Your task to perform on an android device: Open Reddit.com Image 0: 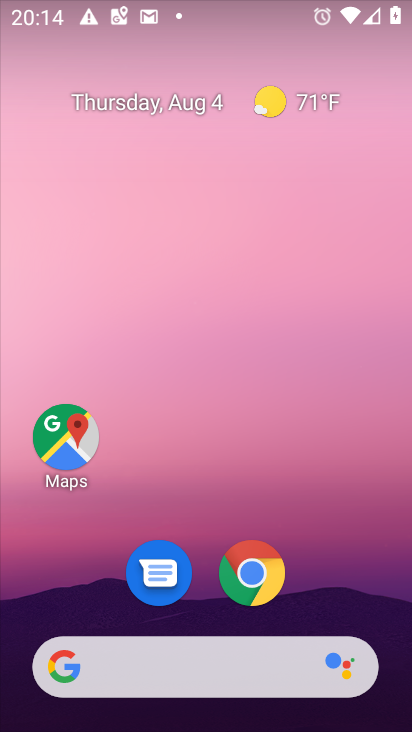
Step 0: click (267, 586)
Your task to perform on an android device: Open Reddit.com Image 1: 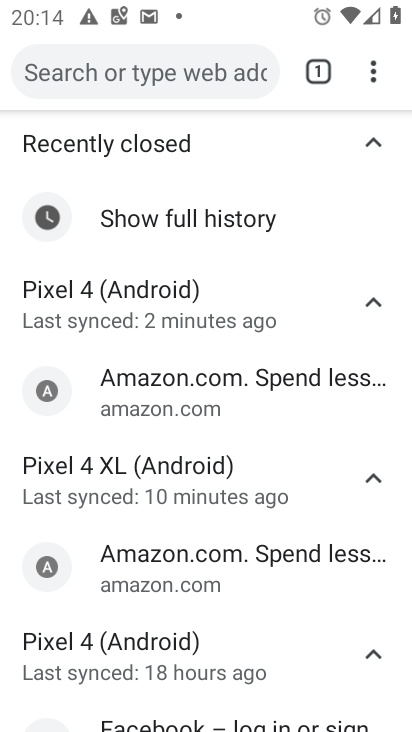
Step 1: drag from (142, 69) to (201, 69)
Your task to perform on an android device: Open Reddit.com Image 2: 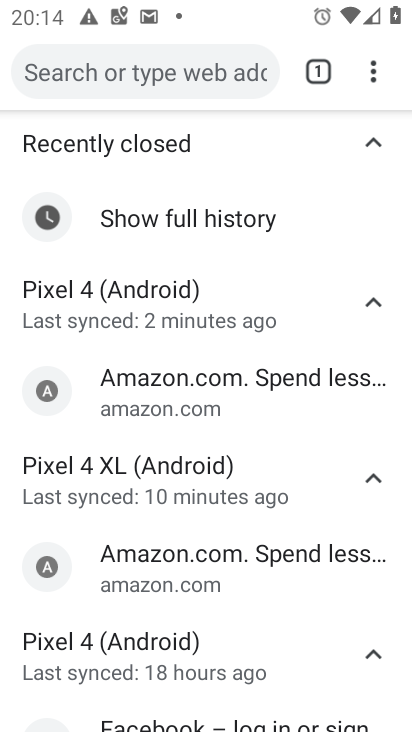
Step 2: click (180, 70)
Your task to perform on an android device: Open Reddit.com Image 3: 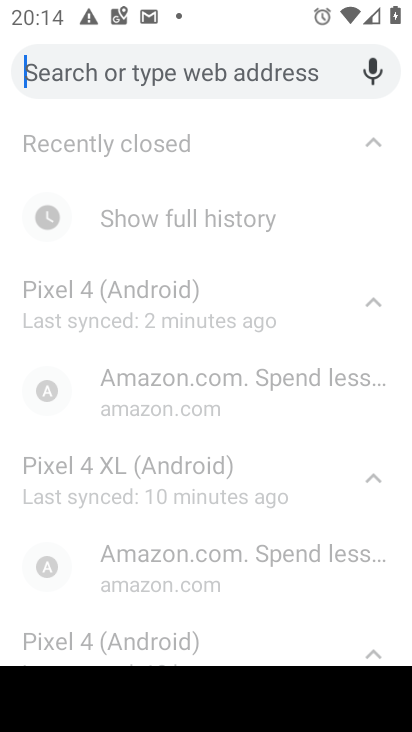
Step 3: type "reddit.com"
Your task to perform on an android device: Open Reddit.com Image 4: 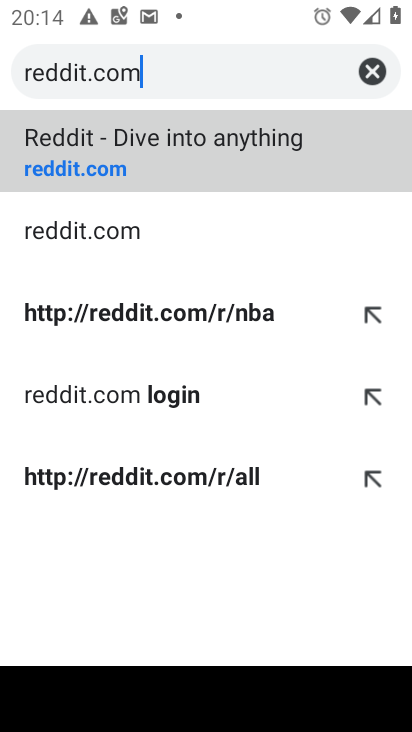
Step 4: click (178, 164)
Your task to perform on an android device: Open Reddit.com Image 5: 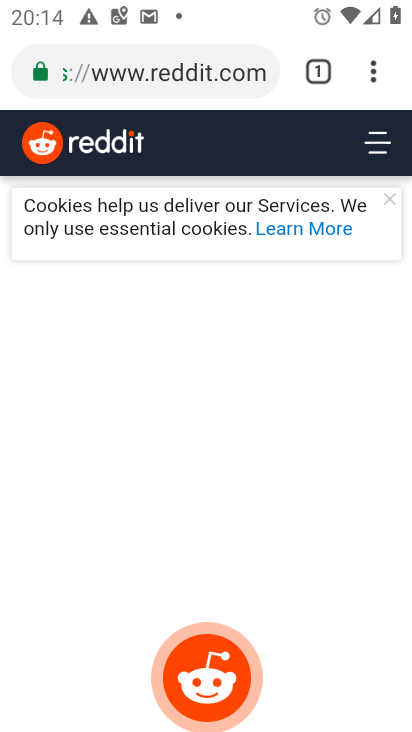
Step 5: task complete